Your task to perform on an android device: move an email to a new category in the gmail app Image 0: 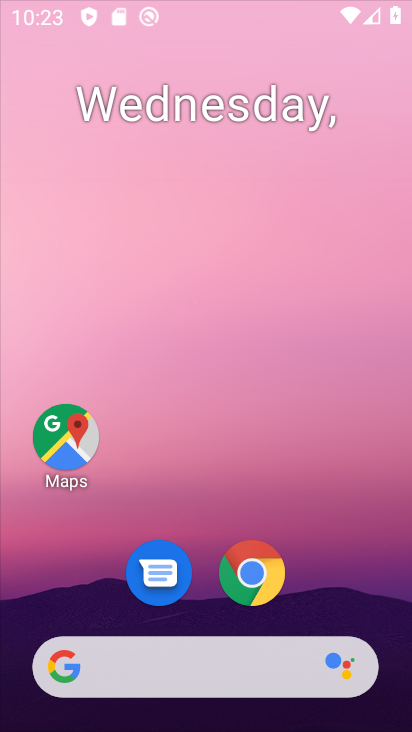
Step 0: drag from (370, 617) to (349, 195)
Your task to perform on an android device: move an email to a new category in the gmail app Image 1: 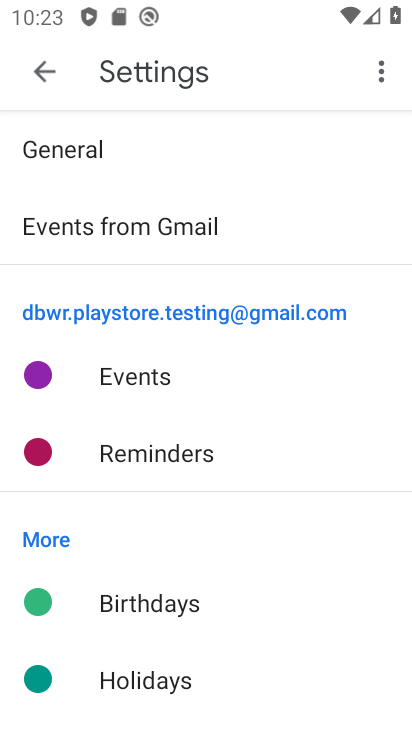
Step 1: press back button
Your task to perform on an android device: move an email to a new category in the gmail app Image 2: 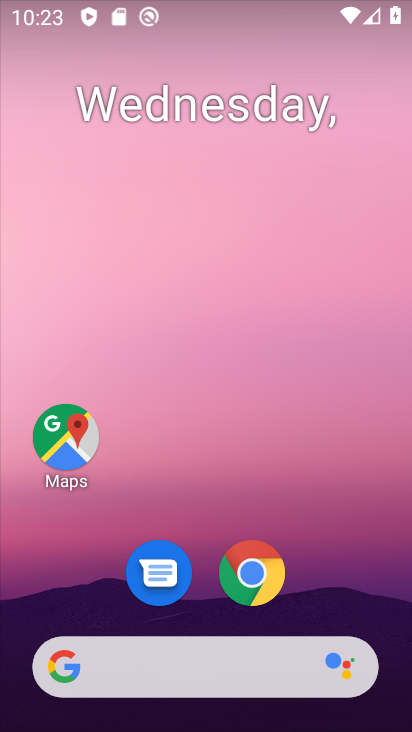
Step 2: drag from (375, 569) to (338, 163)
Your task to perform on an android device: move an email to a new category in the gmail app Image 3: 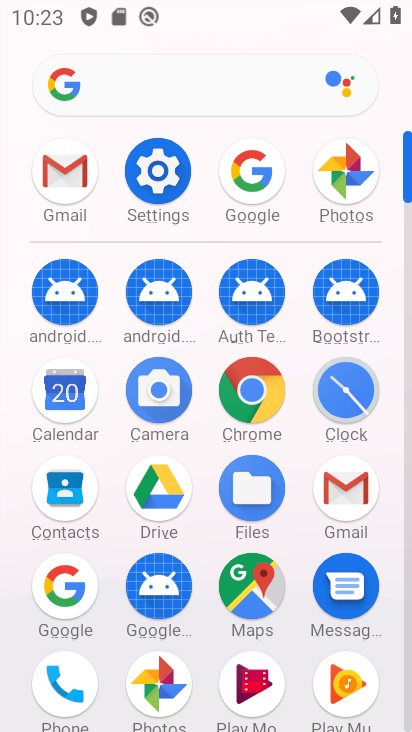
Step 3: click (64, 185)
Your task to perform on an android device: move an email to a new category in the gmail app Image 4: 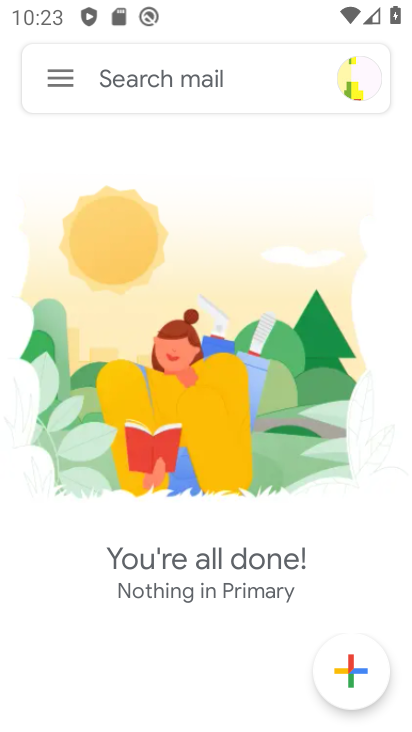
Step 4: click (68, 76)
Your task to perform on an android device: move an email to a new category in the gmail app Image 5: 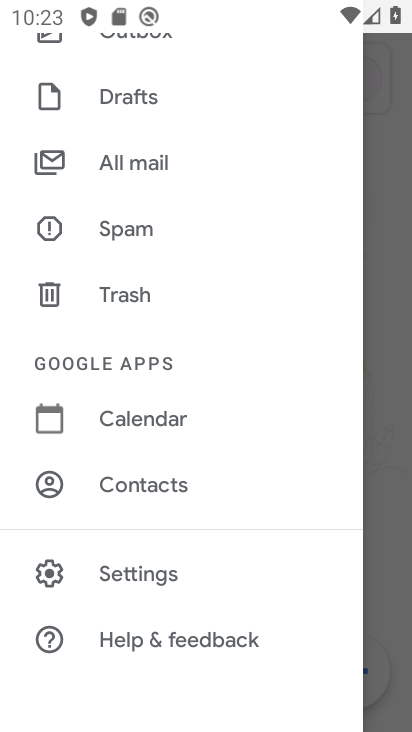
Step 5: drag from (243, 408) to (244, 448)
Your task to perform on an android device: move an email to a new category in the gmail app Image 6: 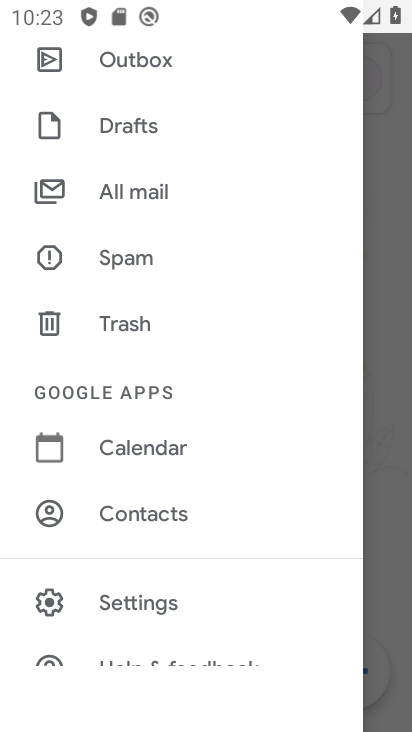
Step 6: drag from (297, 557) to (294, 602)
Your task to perform on an android device: move an email to a new category in the gmail app Image 7: 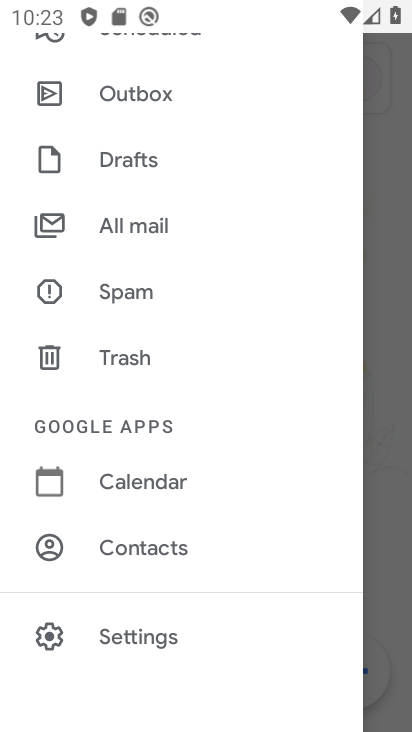
Step 7: drag from (285, 128) to (277, 541)
Your task to perform on an android device: move an email to a new category in the gmail app Image 8: 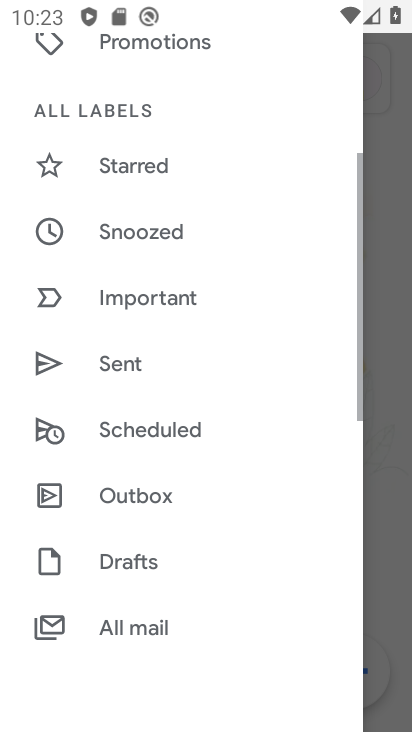
Step 8: drag from (266, 324) to (257, 556)
Your task to perform on an android device: move an email to a new category in the gmail app Image 9: 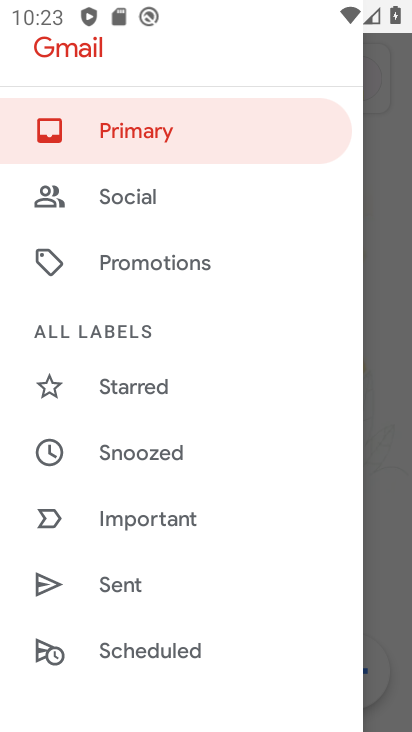
Step 9: click (204, 135)
Your task to perform on an android device: move an email to a new category in the gmail app Image 10: 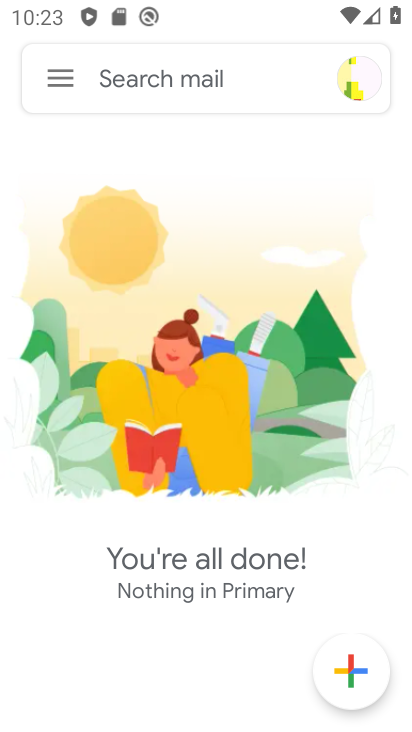
Step 10: task complete